Your task to perform on an android device: Open privacy settings Image 0: 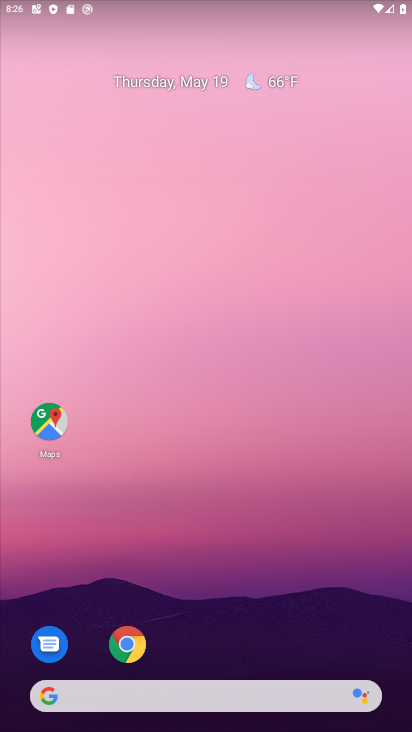
Step 0: drag from (297, 589) to (363, 139)
Your task to perform on an android device: Open privacy settings Image 1: 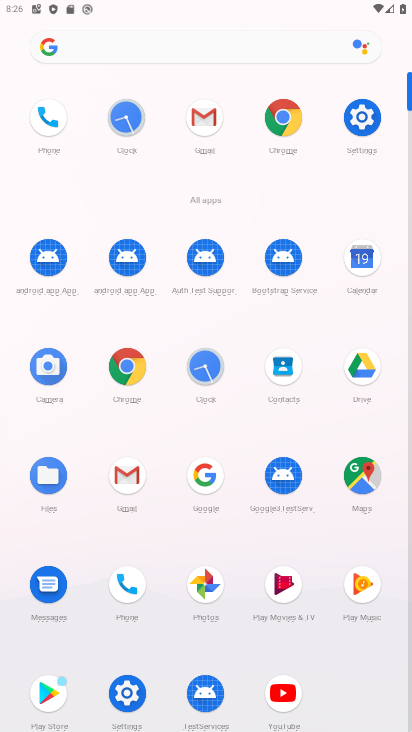
Step 1: click (363, 120)
Your task to perform on an android device: Open privacy settings Image 2: 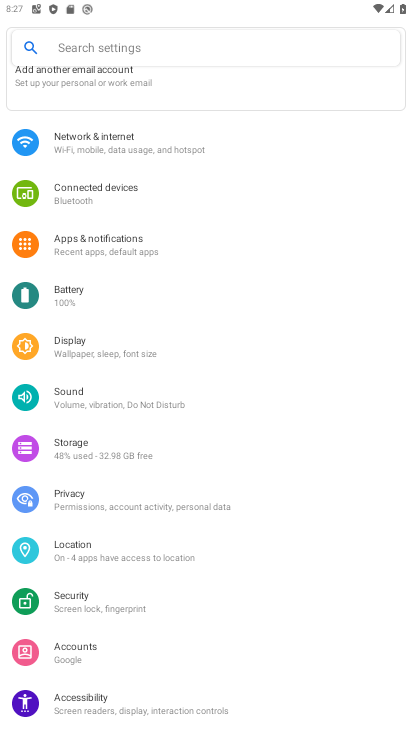
Step 2: click (77, 502)
Your task to perform on an android device: Open privacy settings Image 3: 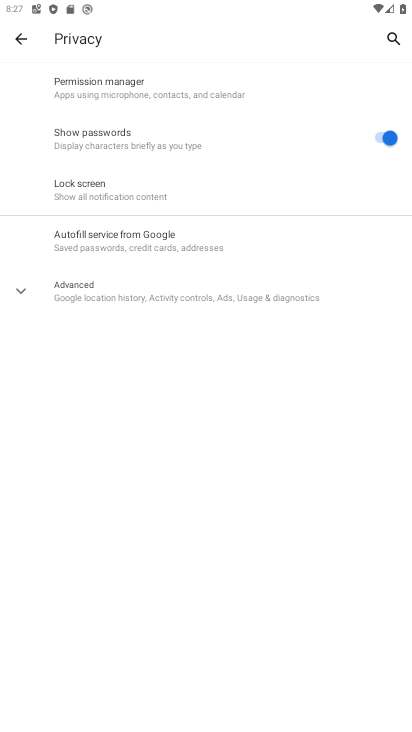
Step 3: task complete